Your task to perform on an android device: see tabs open on other devices in the chrome app Image 0: 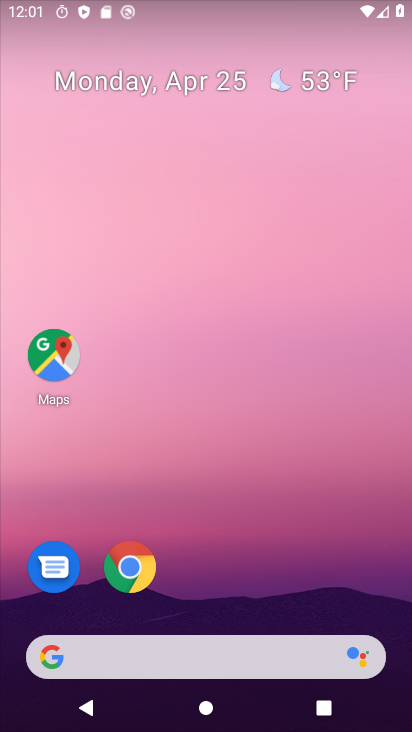
Step 0: click (144, 577)
Your task to perform on an android device: see tabs open on other devices in the chrome app Image 1: 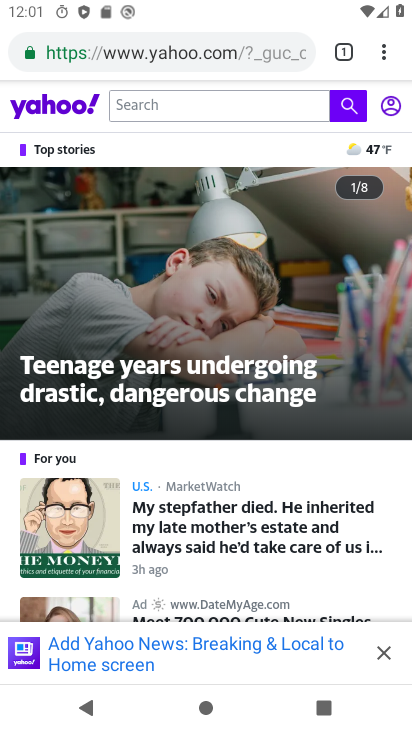
Step 1: click (390, 49)
Your task to perform on an android device: see tabs open on other devices in the chrome app Image 2: 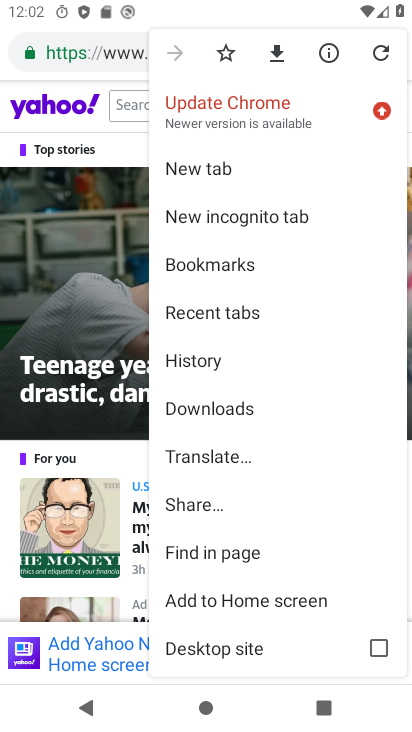
Step 2: click (248, 306)
Your task to perform on an android device: see tabs open on other devices in the chrome app Image 3: 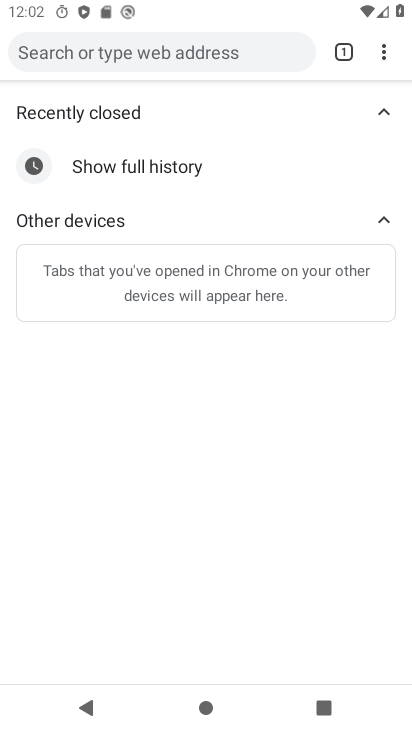
Step 3: task complete